Your task to perform on an android device: Search for "lg ultragear" on costco.com, select the first entry, and add it to the cart. Image 0: 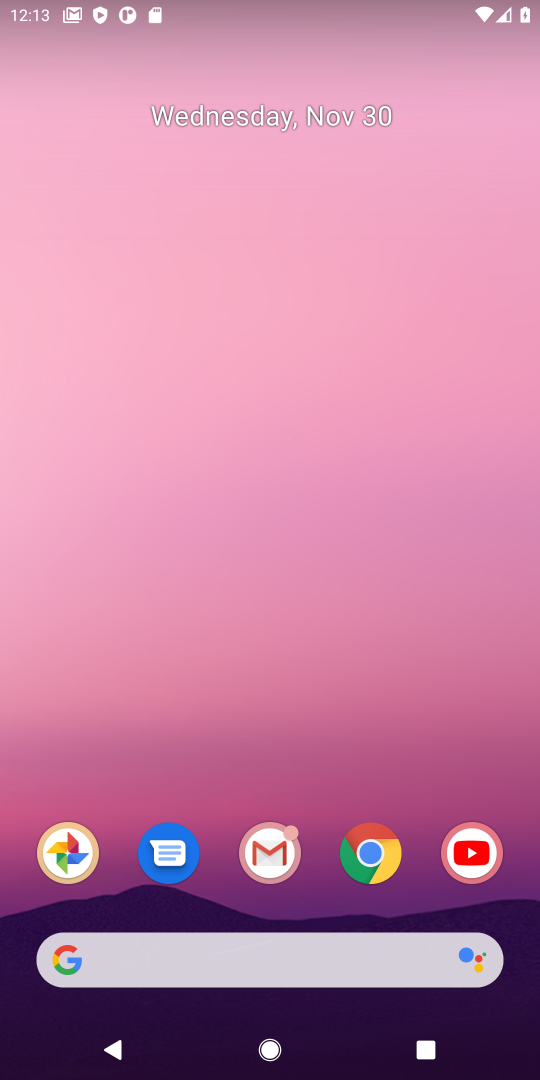
Step 0: click (372, 853)
Your task to perform on an android device: Search for "lg ultragear" on costco.com, select the first entry, and add it to the cart. Image 1: 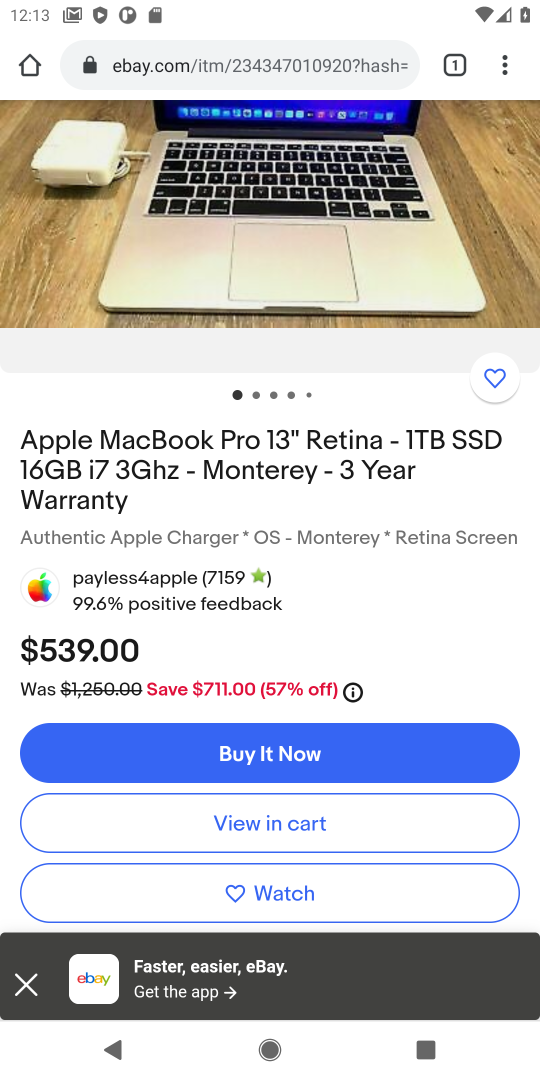
Step 1: click (223, 60)
Your task to perform on an android device: Search for "lg ultragear" on costco.com, select the first entry, and add it to the cart. Image 2: 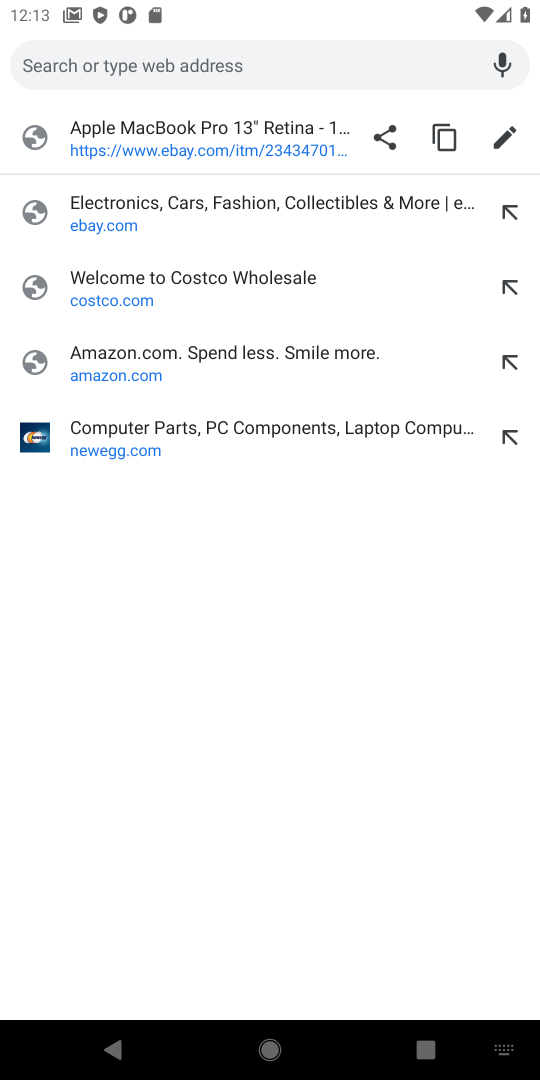
Step 2: click (127, 298)
Your task to perform on an android device: Search for "lg ultragear" on costco.com, select the first entry, and add it to the cart. Image 3: 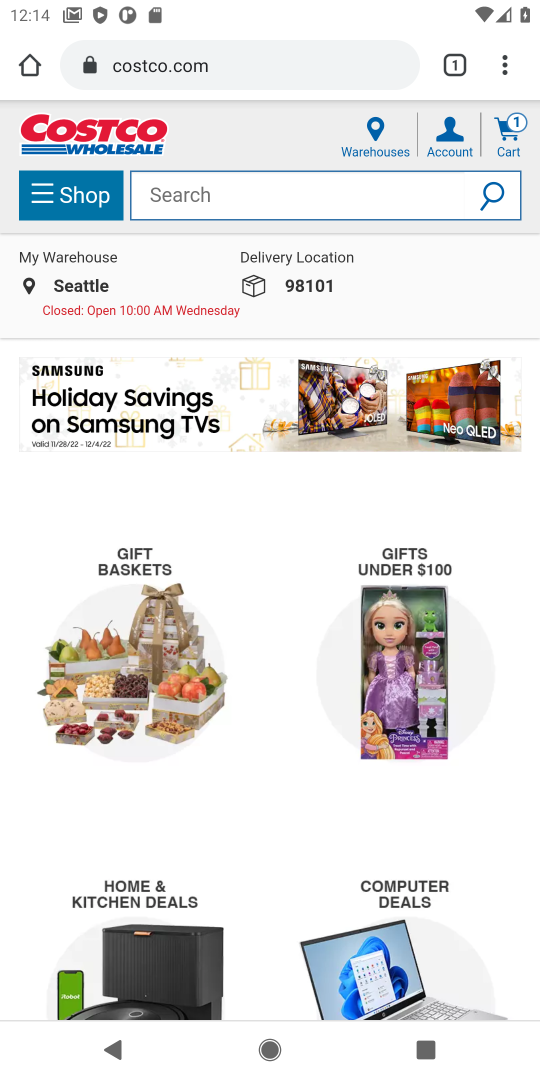
Step 3: click (179, 196)
Your task to perform on an android device: Search for "lg ultragear" on costco.com, select the first entry, and add it to the cart. Image 4: 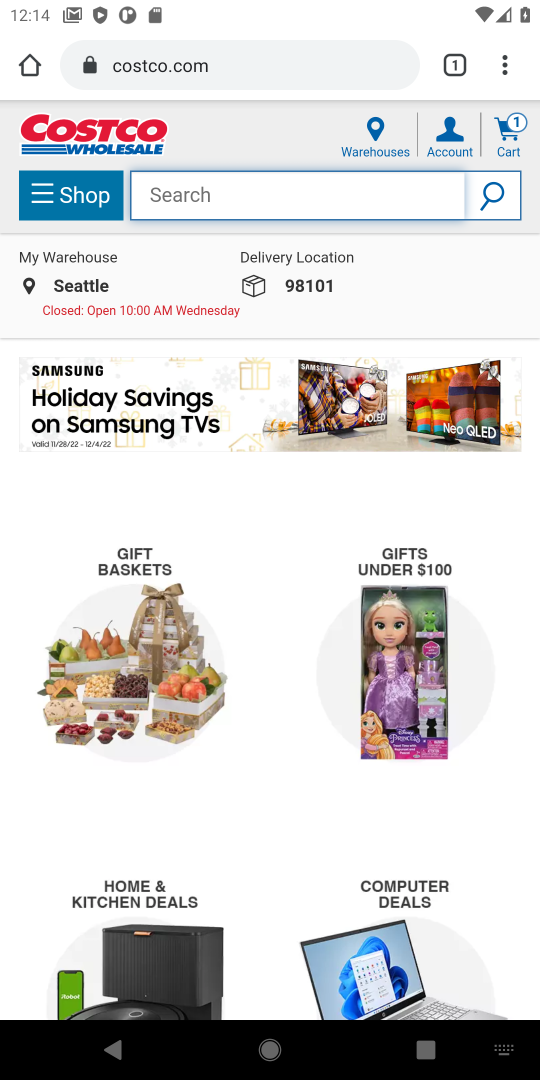
Step 4: type "lg ultragear"
Your task to perform on an android device: Search for "lg ultragear" on costco.com, select the first entry, and add it to the cart. Image 5: 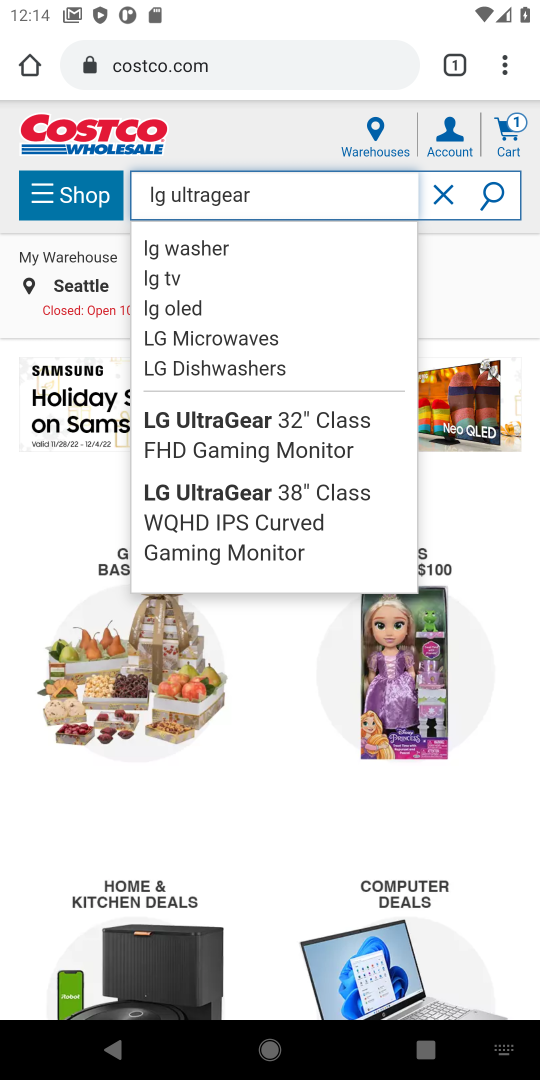
Step 5: click (499, 191)
Your task to perform on an android device: Search for "lg ultragear" on costco.com, select the first entry, and add it to the cart. Image 6: 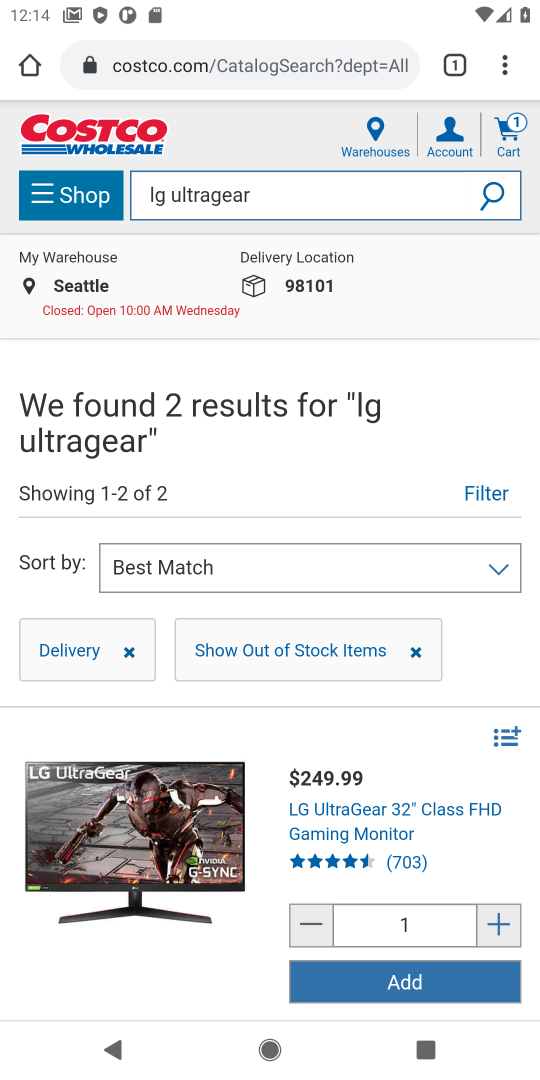
Step 6: drag from (257, 747) to (277, 568)
Your task to perform on an android device: Search for "lg ultragear" on costco.com, select the first entry, and add it to the cart. Image 7: 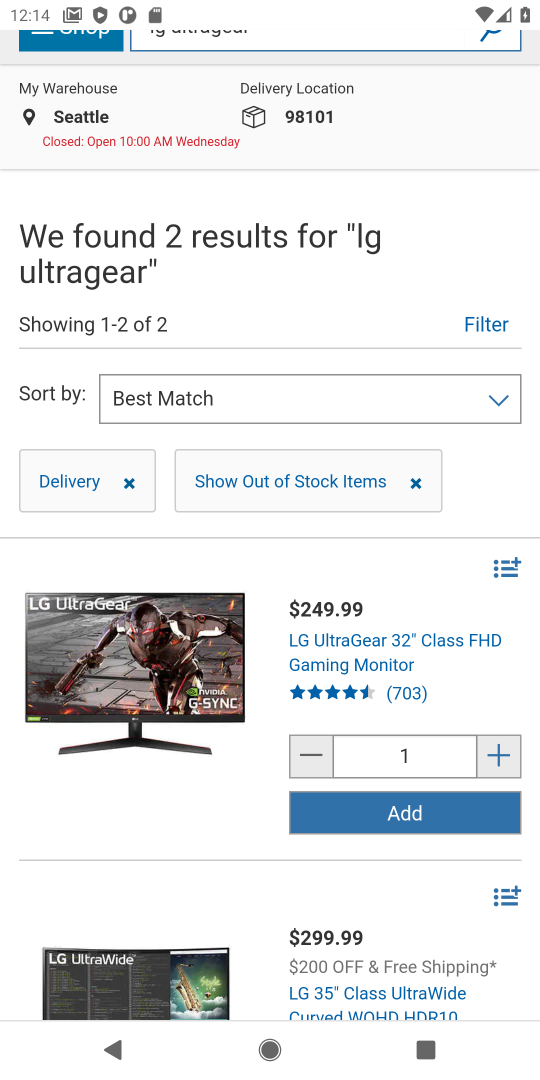
Step 7: click (397, 811)
Your task to perform on an android device: Search for "lg ultragear" on costco.com, select the first entry, and add it to the cart. Image 8: 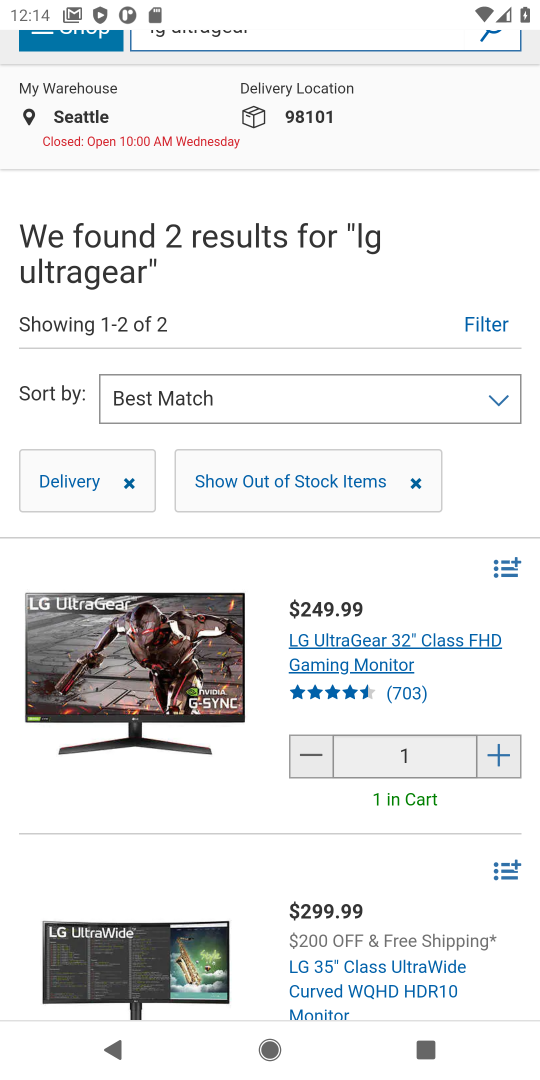
Step 8: task complete